Your task to perform on an android device: open sync settings in chrome Image 0: 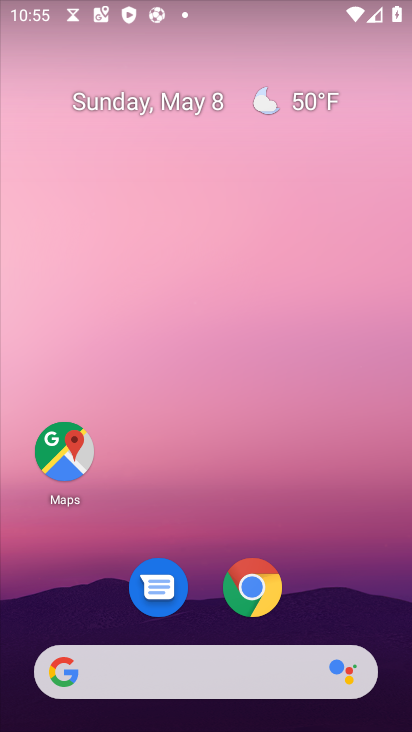
Step 0: click (251, 570)
Your task to perform on an android device: open sync settings in chrome Image 1: 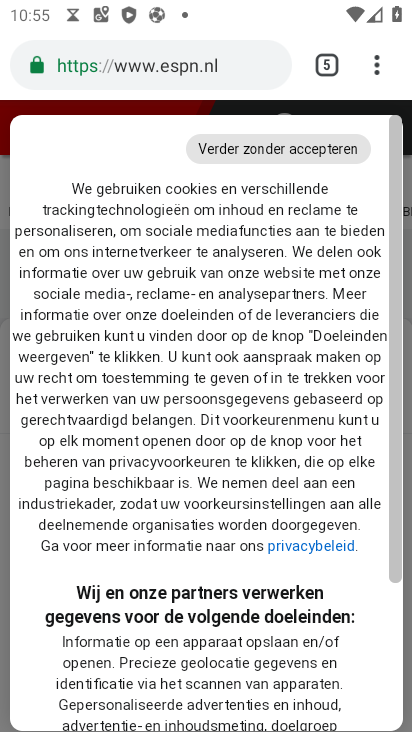
Step 1: drag from (376, 60) to (161, 631)
Your task to perform on an android device: open sync settings in chrome Image 2: 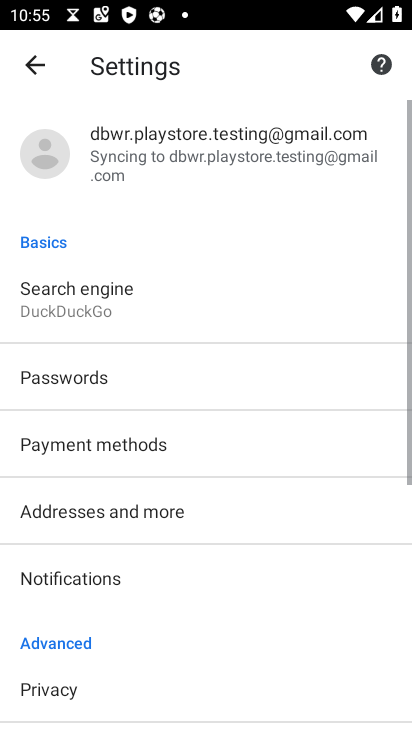
Step 2: drag from (166, 654) to (168, 346)
Your task to perform on an android device: open sync settings in chrome Image 3: 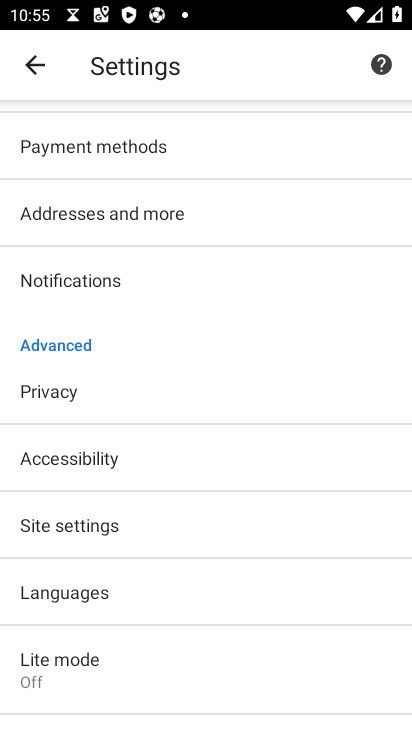
Step 3: click (73, 529)
Your task to perform on an android device: open sync settings in chrome Image 4: 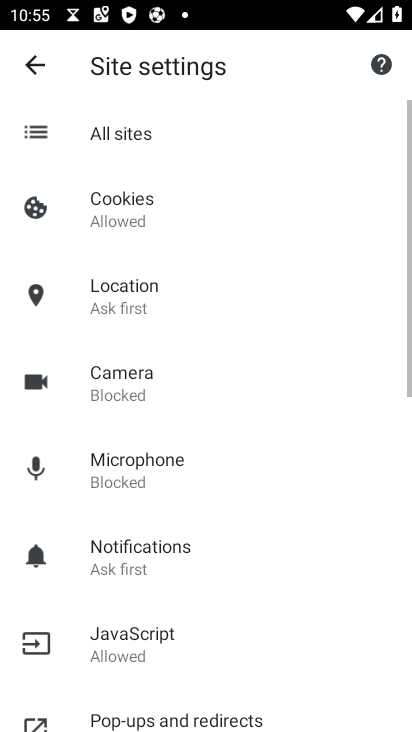
Step 4: drag from (192, 682) to (203, 412)
Your task to perform on an android device: open sync settings in chrome Image 5: 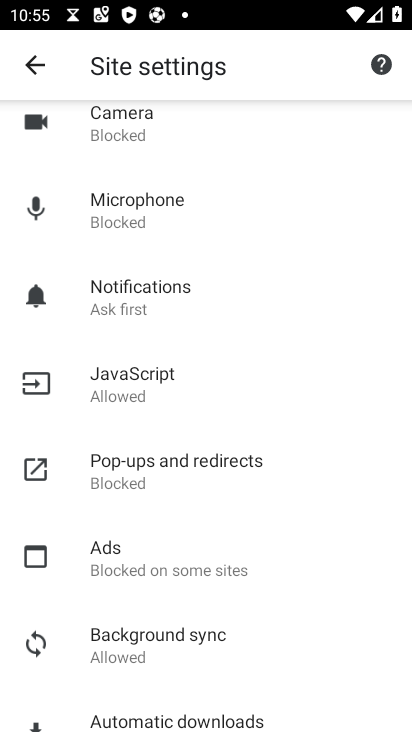
Step 5: click (140, 653)
Your task to perform on an android device: open sync settings in chrome Image 6: 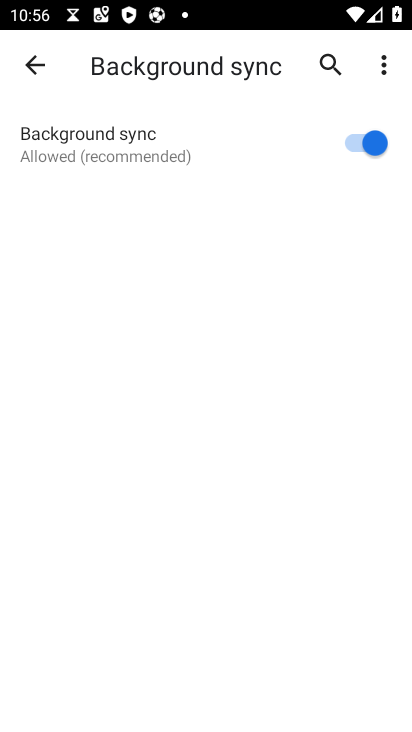
Step 6: task complete